Your task to perform on an android device: Go to settings Image 0: 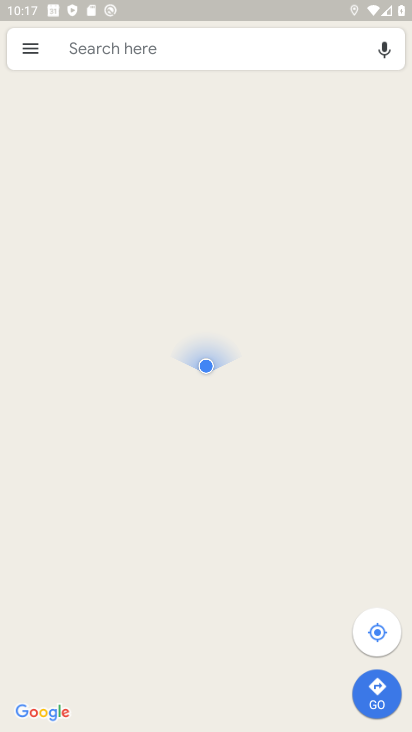
Step 0: press home button
Your task to perform on an android device: Go to settings Image 1: 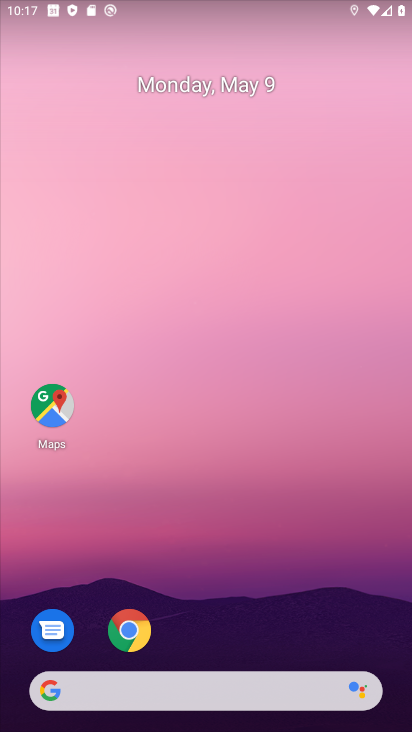
Step 1: drag from (220, 590) to (314, 114)
Your task to perform on an android device: Go to settings Image 2: 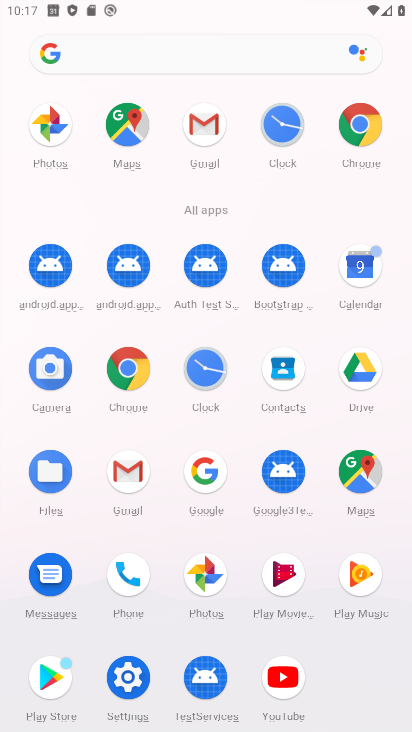
Step 2: click (131, 680)
Your task to perform on an android device: Go to settings Image 3: 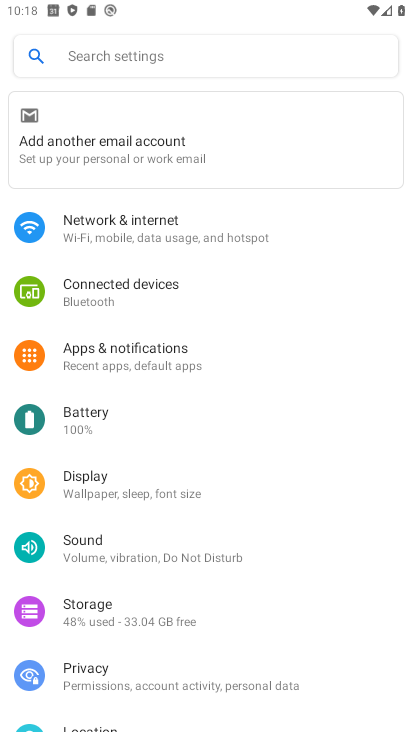
Step 3: task complete